Your task to perform on an android device: turn off notifications in google photos Image 0: 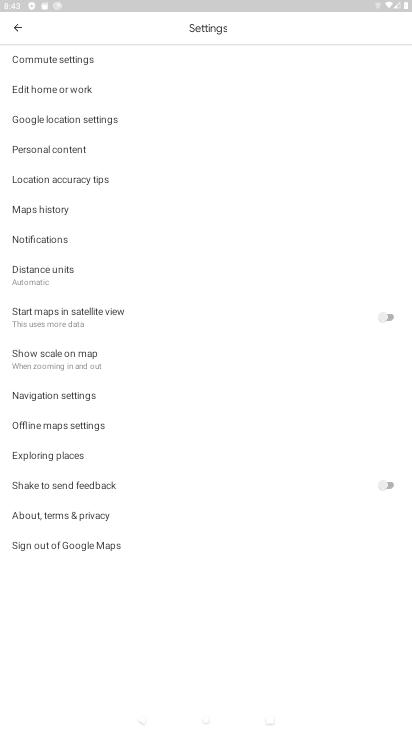
Step 0: press home button
Your task to perform on an android device: turn off notifications in google photos Image 1: 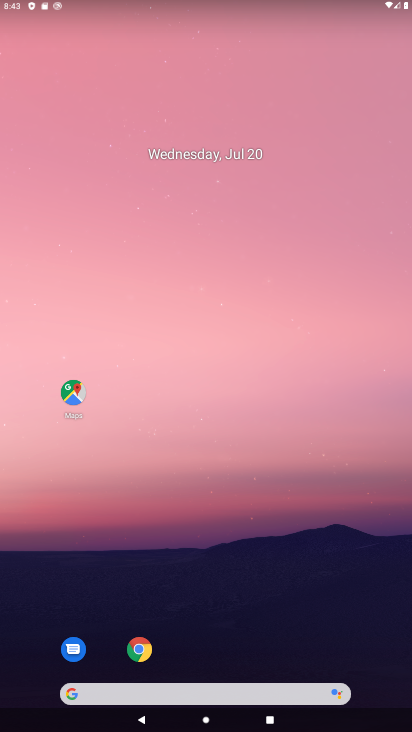
Step 1: drag from (155, 679) to (134, 181)
Your task to perform on an android device: turn off notifications in google photos Image 2: 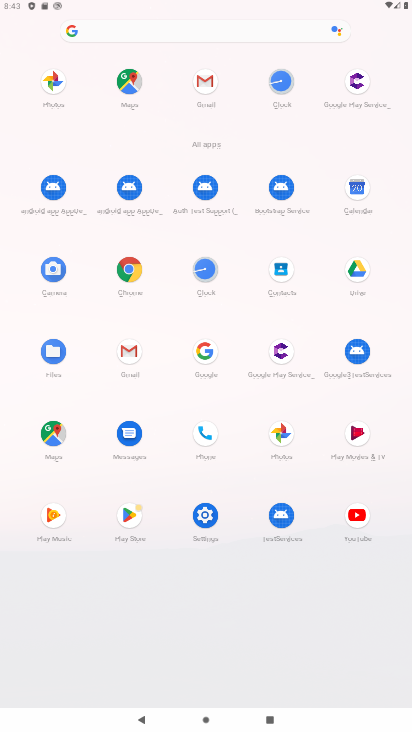
Step 2: click (272, 427)
Your task to perform on an android device: turn off notifications in google photos Image 3: 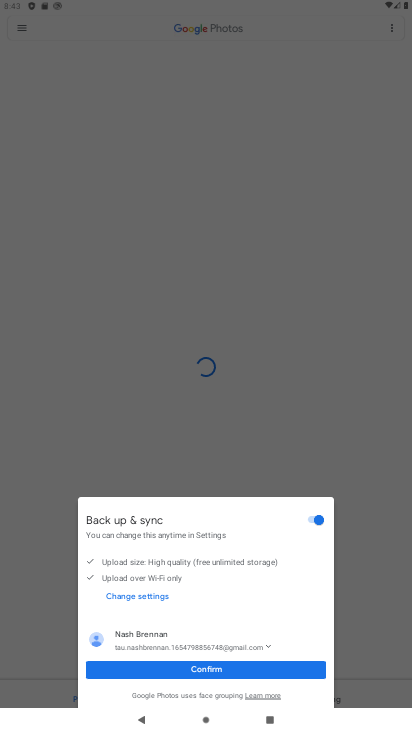
Step 3: click (217, 671)
Your task to perform on an android device: turn off notifications in google photos Image 4: 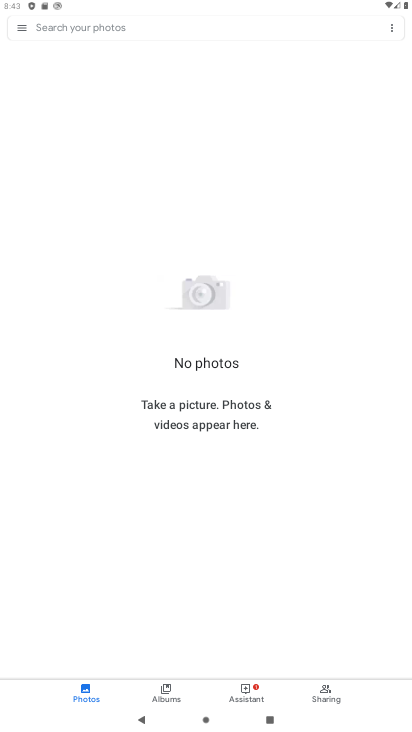
Step 4: click (20, 30)
Your task to perform on an android device: turn off notifications in google photos Image 5: 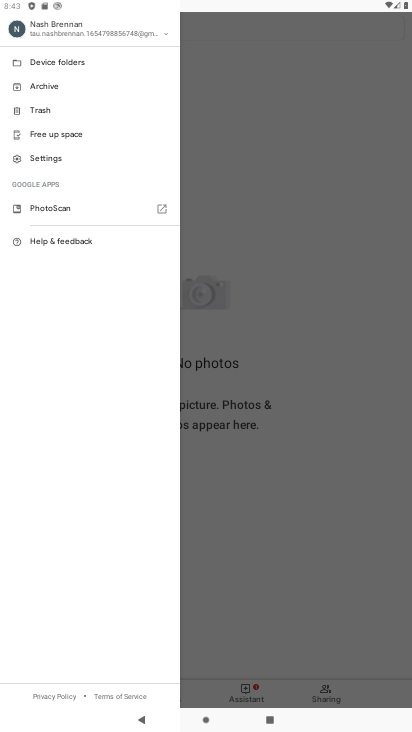
Step 5: click (47, 157)
Your task to perform on an android device: turn off notifications in google photos Image 6: 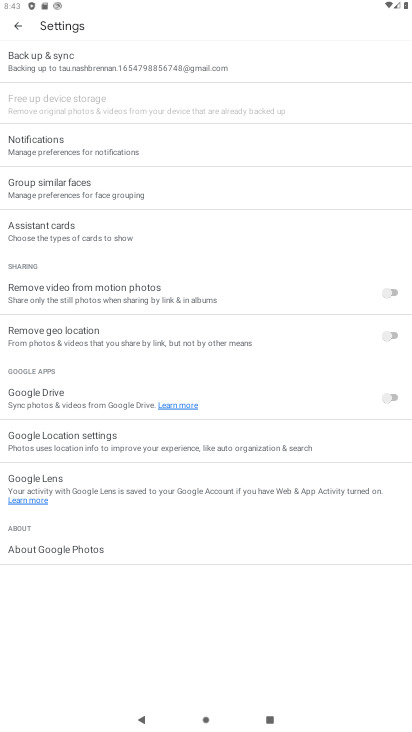
Step 6: click (47, 144)
Your task to perform on an android device: turn off notifications in google photos Image 7: 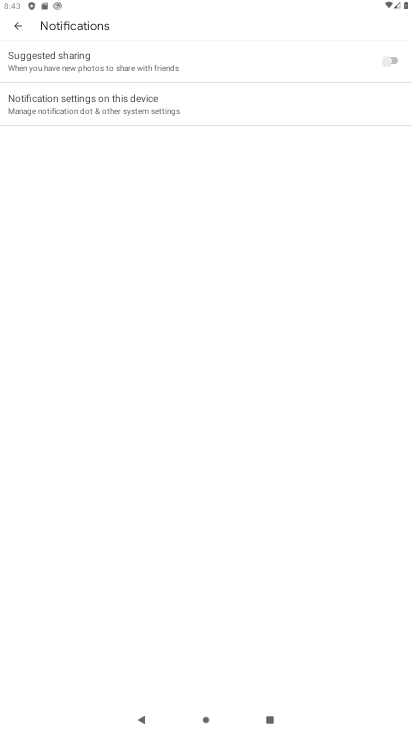
Step 7: click (116, 111)
Your task to perform on an android device: turn off notifications in google photos Image 8: 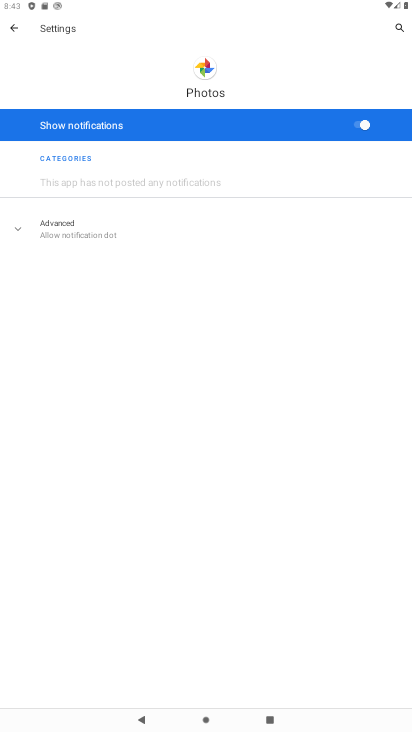
Step 8: click (359, 123)
Your task to perform on an android device: turn off notifications in google photos Image 9: 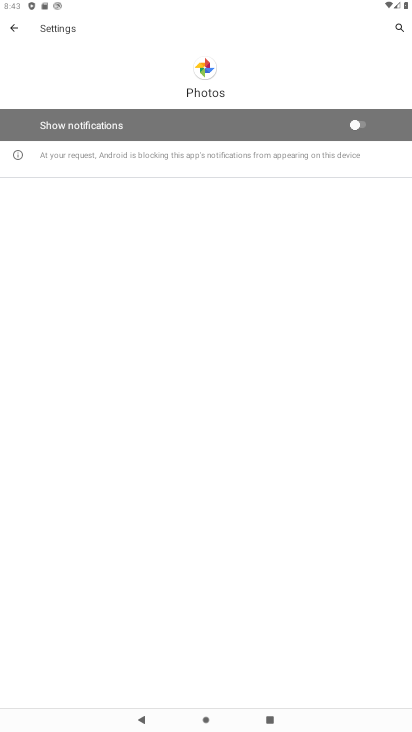
Step 9: task complete